Your task to perform on an android device: open app "Microsoft Excel" Image 0: 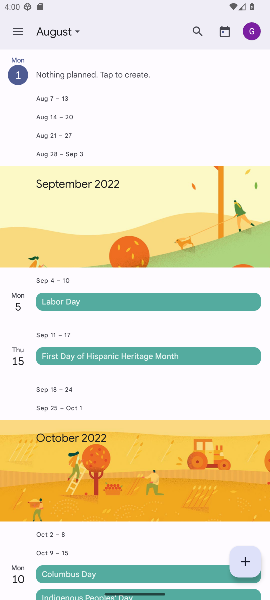
Step 0: press home button
Your task to perform on an android device: open app "Microsoft Excel" Image 1: 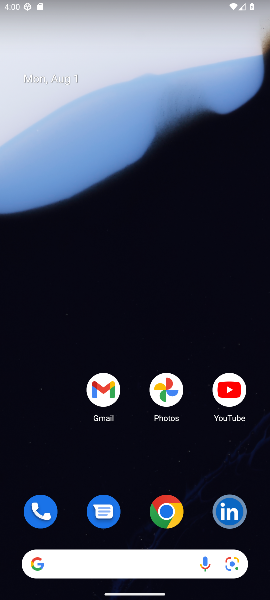
Step 1: drag from (141, 432) to (153, 77)
Your task to perform on an android device: open app "Microsoft Excel" Image 2: 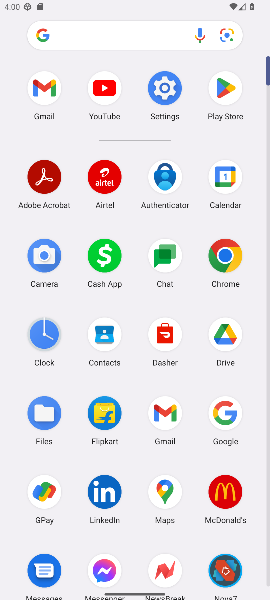
Step 2: click (231, 101)
Your task to perform on an android device: open app "Microsoft Excel" Image 3: 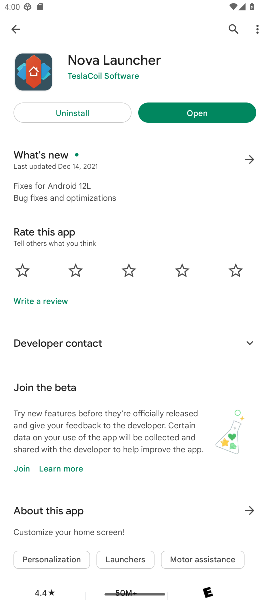
Step 3: click (21, 28)
Your task to perform on an android device: open app "Microsoft Excel" Image 4: 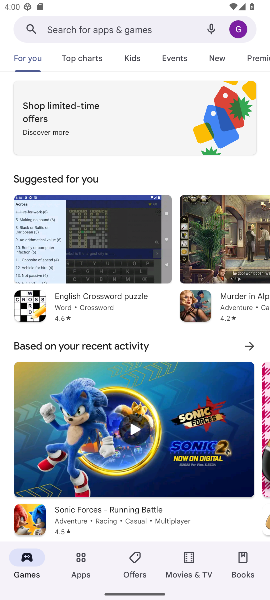
Step 4: click (115, 24)
Your task to perform on an android device: open app "Microsoft Excel" Image 5: 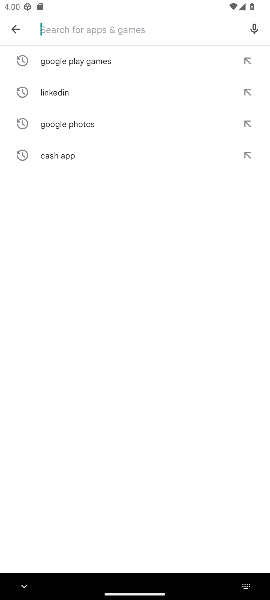
Step 5: type "Microsoft Excel"
Your task to perform on an android device: open app "Microsoft Excel" Image 6: 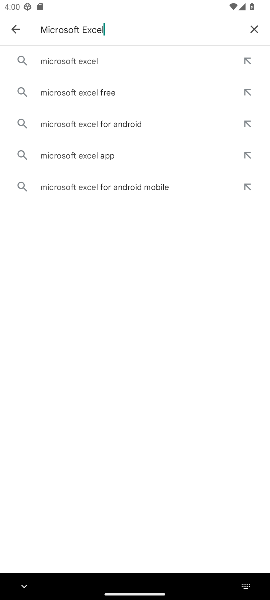
Step 6: click (90, 58)
Your task to perform on an android device: open app "Microsoft Excel" Image 7: 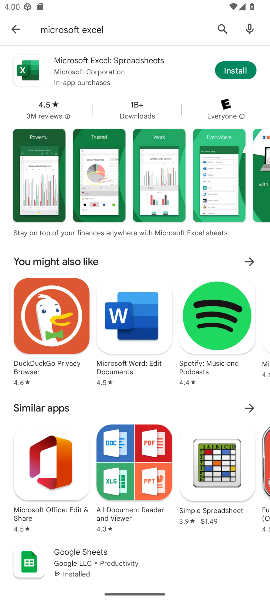
Step 7: click (233, 72)
Your task to perform on an android device: open app "Microsoft Excel" Image 8: 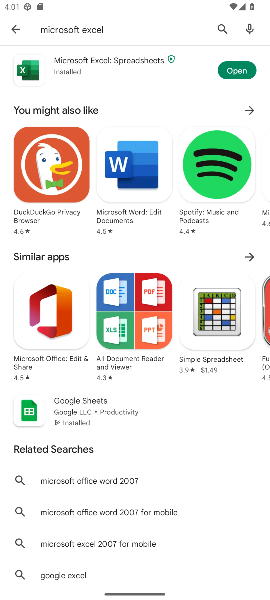
Step 8: click (232, 68)
Your task to perform on an android device: open app "Microsoft Excel" Image 9: 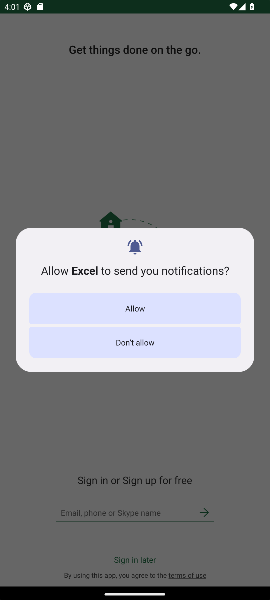
Step 9: click (144, 312)
Your task to perform on an android device: open app "Microsoft Excel" Image 10: 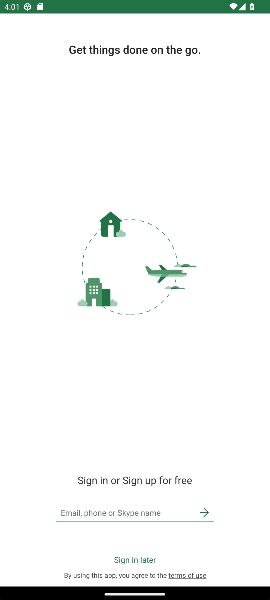
Step 10: task complete